Your task to perform on an android device: Go to Reddit.com Image 0: 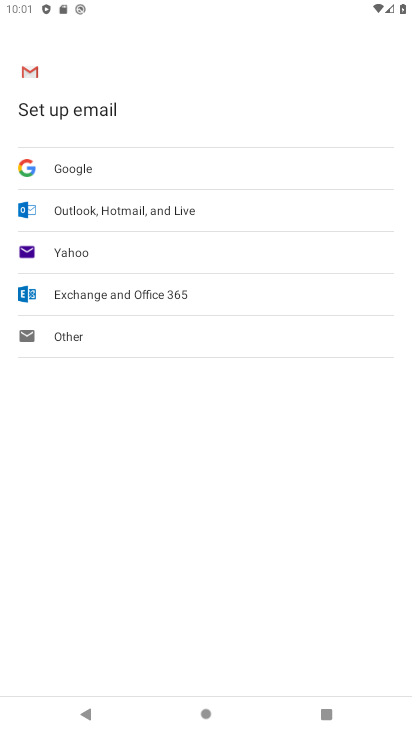
Step 0: press back button
Your task to perform on an android device: Go to Reddit.com Image 1: 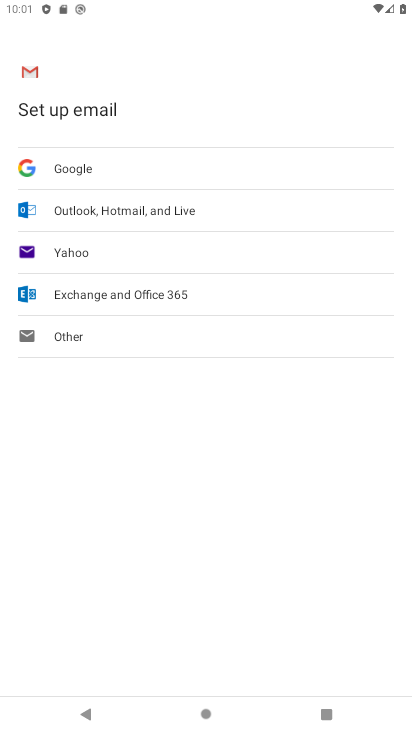
Step 1: press back button
Your task to perform on an android device: Go to Reddit.com Image 2: 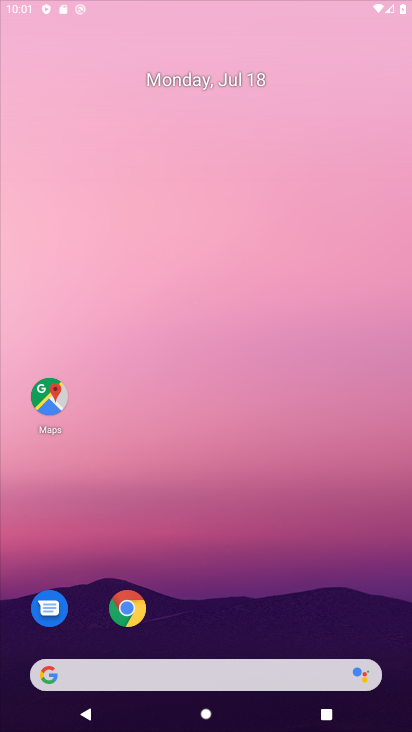
Step 2: press back button
Your task to perform on an android device: Go to Reddit.com Image 3: 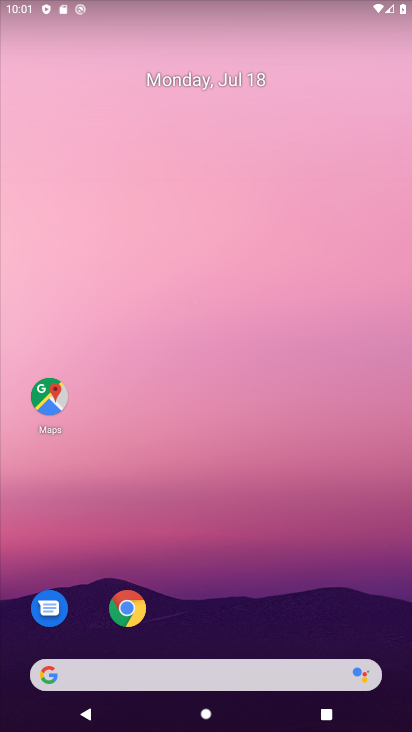
Step 3: click (273, 565)
Your task to perform on an android device: Go to Reddit.com Image 4: 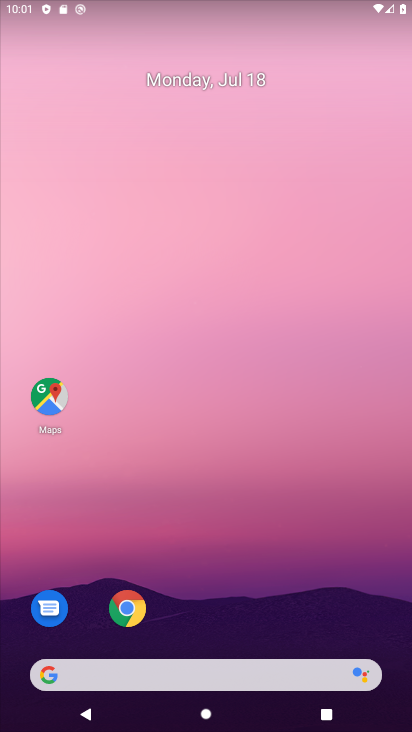
Step 4: drag from (167, 552) to (167, 293)
Your task to perform on an android device: Go to Reddit.com Image 5: 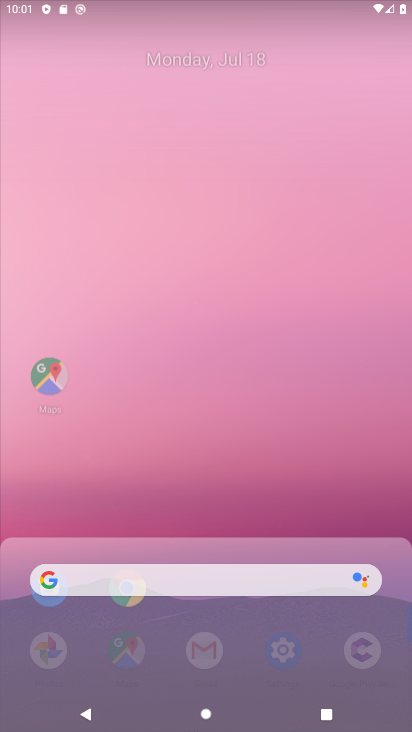
Step 5: drag from (231, 555) to (259, 316)
Your task to perform on an android device: Go to Reddit.com Image 6: 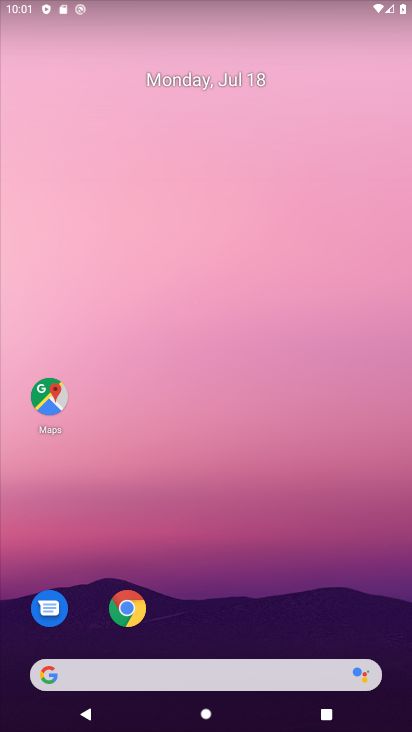
Step 6: drag from (210, 528) to (193, 337)
Your task to perform on an android device: Go to Reddit.com Image 7: 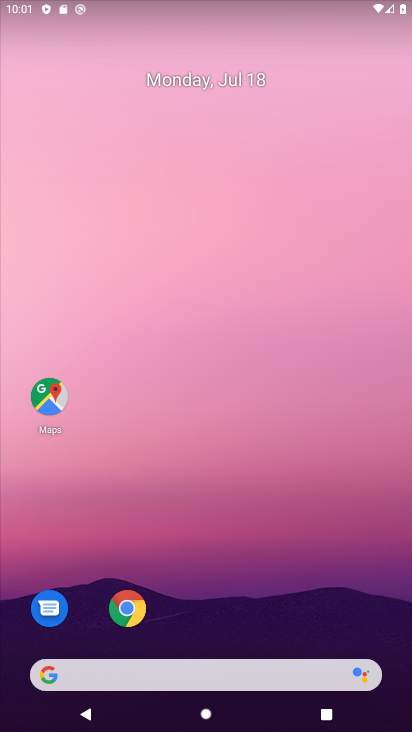
Step 7: click (221, 329)
Your task to perform on an android device: Go to Reddit.com Image 8: 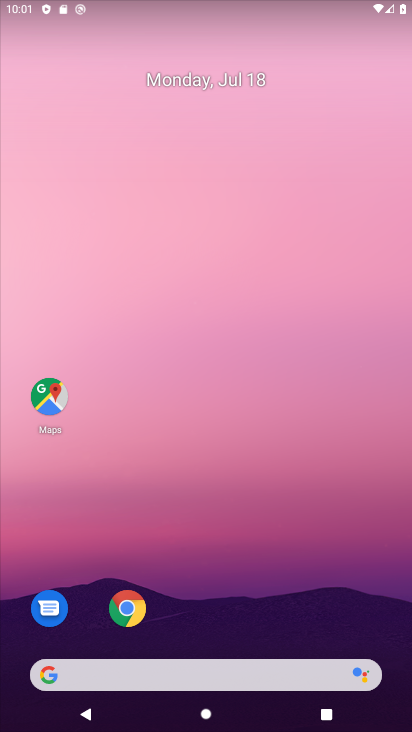
Step 8: click (288, 66)
Your task to perform on an android device: Go to Reddit.com Image 9: 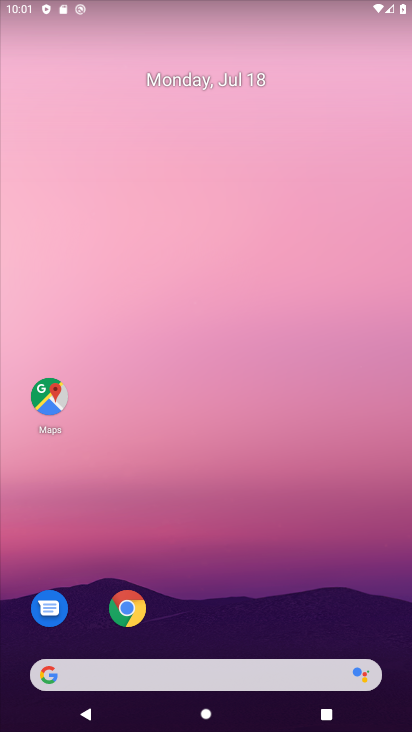
Step 9: drag from (173, 107) to (224, 228)
Your task to perform on an android device: Go to Reddit.com Image 10: 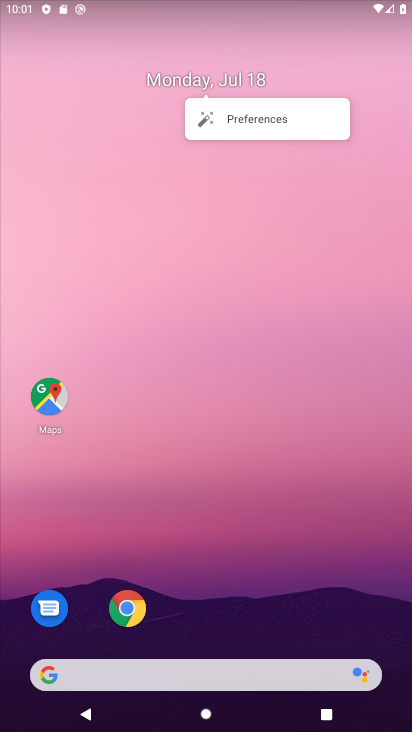
Step 10: click (239, 116)
Your task to perform on an android device: Go to Reddit.com Image 11: 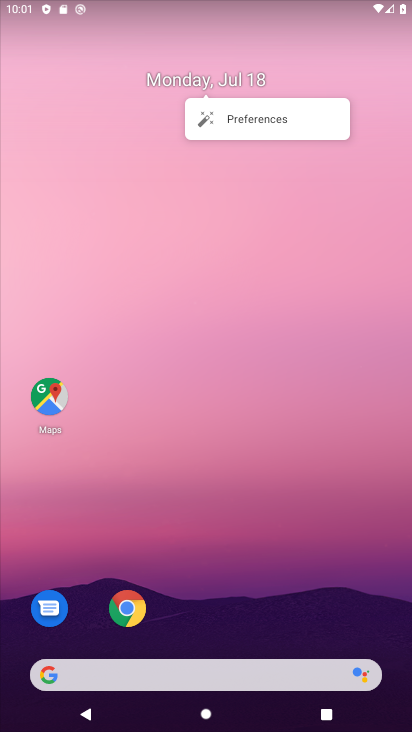
Step 11: click (155, 104)
Your task to perform on an android device: Go to Reddit.com Image 12: 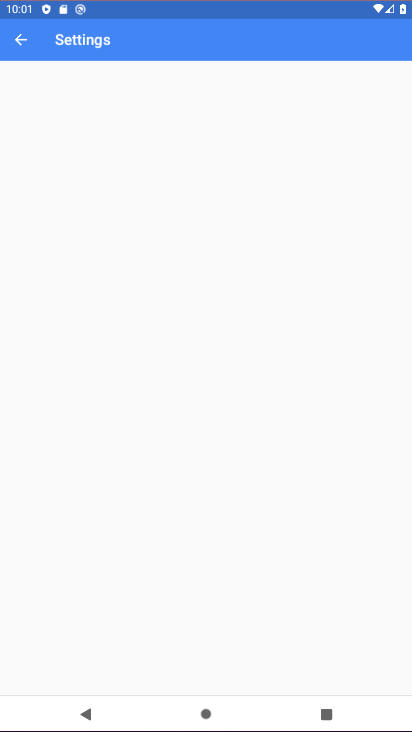
Step 12: drag from (209, 445) to (200, 105)
Your task to perform on an android device: Go to Reddit.com Image 13: 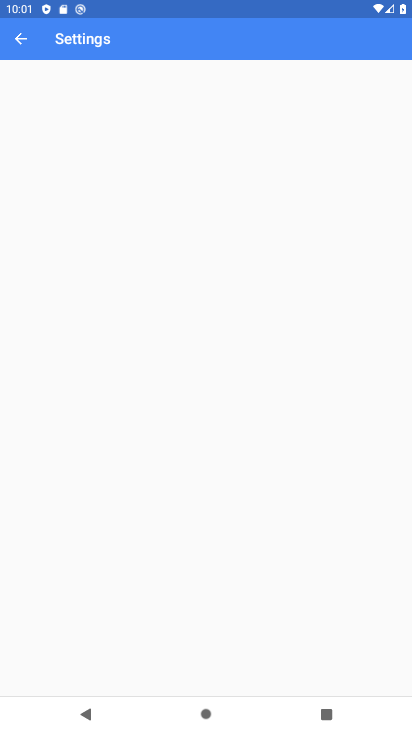
Step 13: drag from (150, 252) to (146, 214)
Your task to perform on an android device: Go to Reddit.com Image 14: 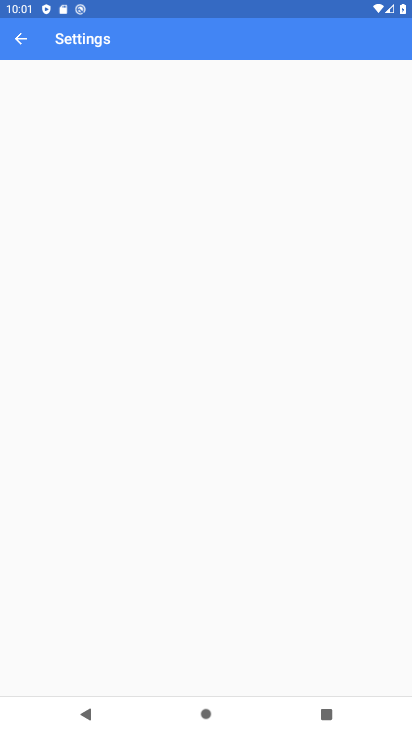
Step 14: click (197, 372)
Your task to perform on an android device: Go to Reddit.com Image 15: 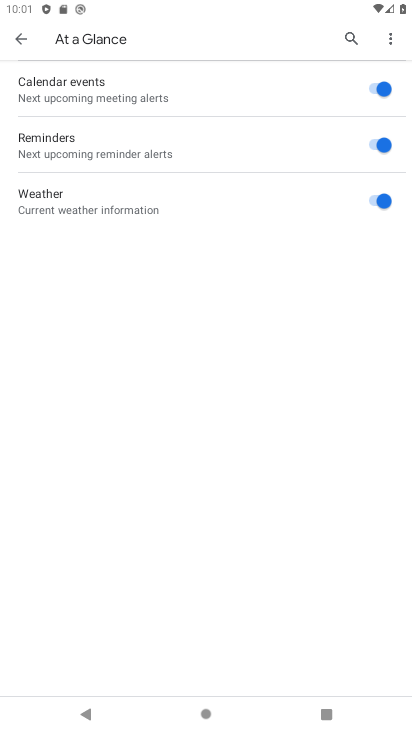
Step 15: click (24, 34)
Your task to perform on an android device: Go to Reddit.com Image 16: 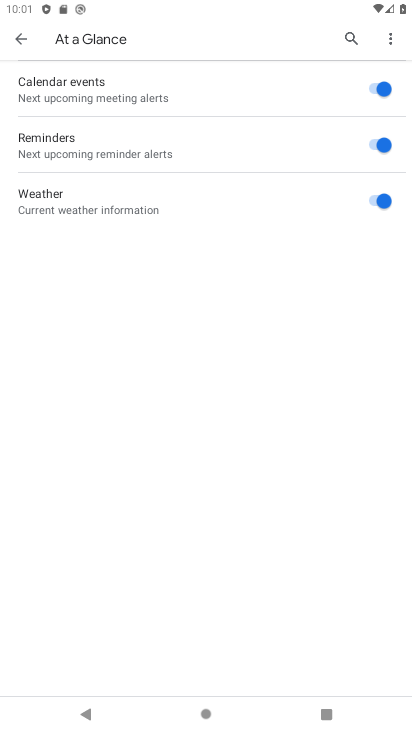
Step 16: click (23, 33)
Your task to perform on an android device: Go to Reddit.com Image 17: 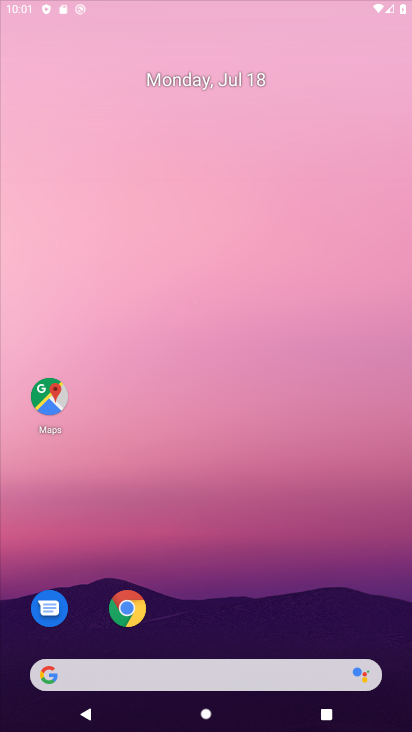
Step 17: click (22, 38)
Your task to perform on an android device: Go to Reddit.com Image 18: 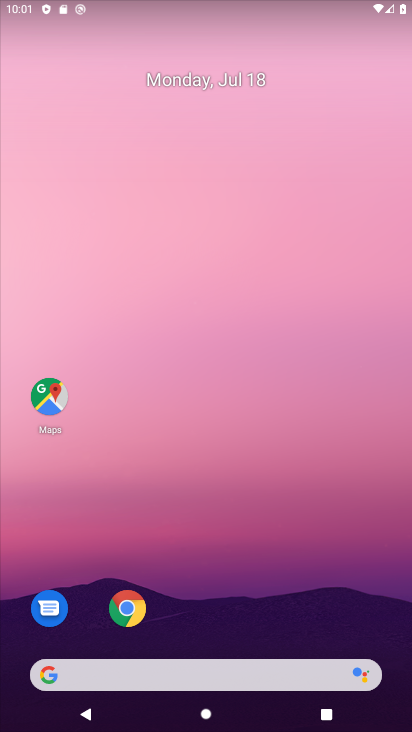
Step 18: drag from (208, 535) to (220, 347)
Your task to perform on an android device: Go to Reddit.com Image 19: 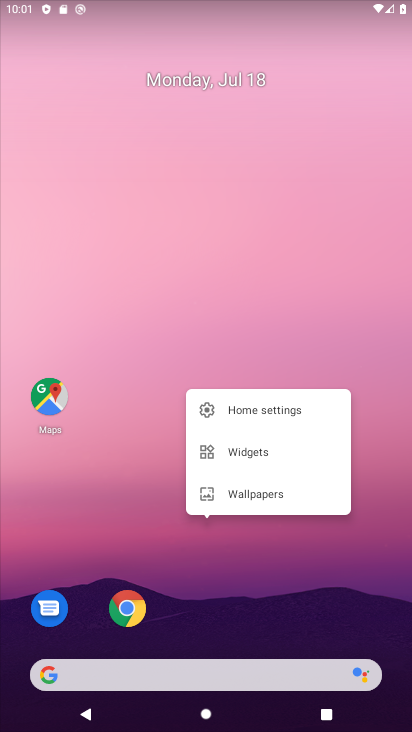
Step 19: drag from (211, 548) to (161, 245)
Your task to perform on an android device: Go to Reddit.com Image 20: 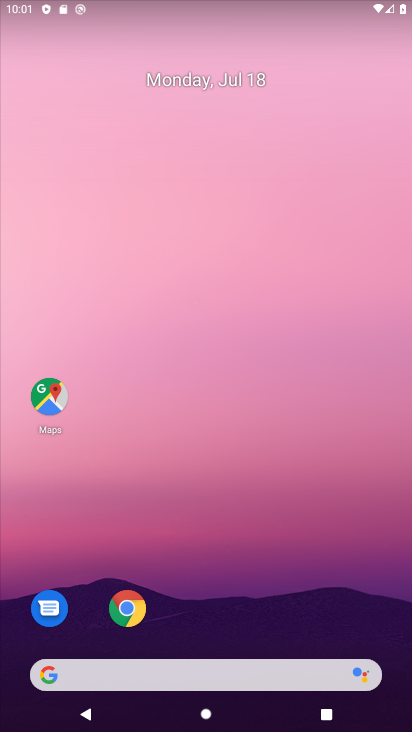
Step 20: drag from (141, 380) to (291, 460)
Your task to perform on an android device: Go to Reddit.com Image 21: 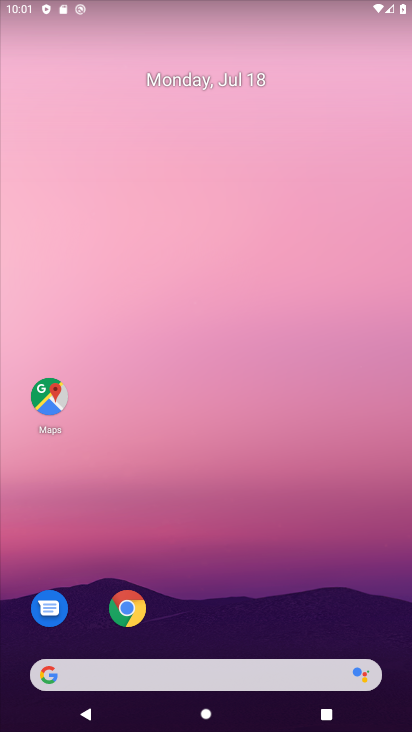
Step 21: drag from (183, 68) to (167, 7)
Your task to perform on an android device: Go to Reddit.com Image 22: 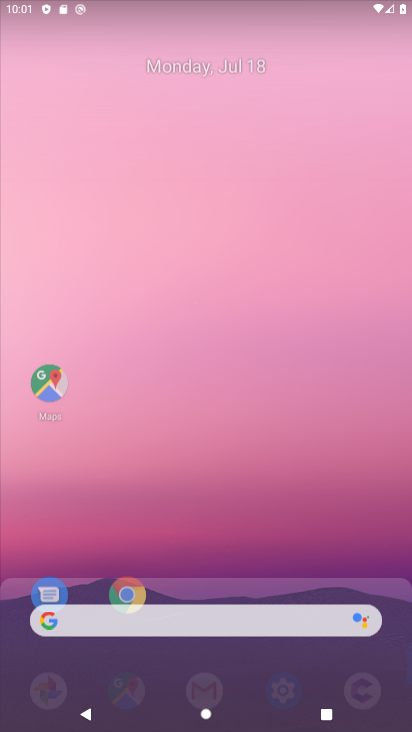
Step 22: drag from (218, 424) to (154, 56)
Your task to perform on an android device: Go to Reddit.com Image 23: 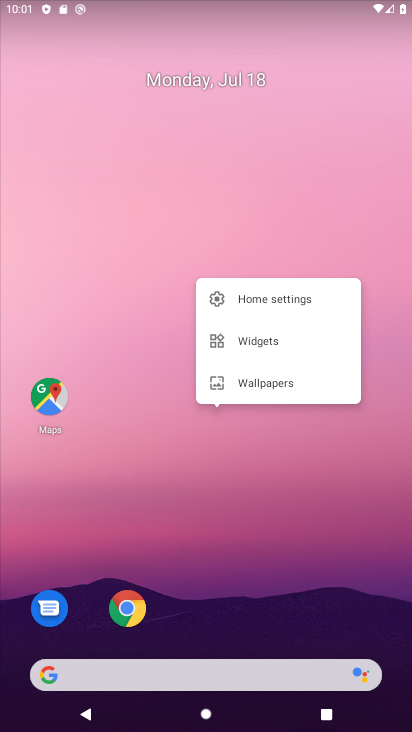
Step 23: drag from (136, 34) to (169, 0)
Your task to perform on an android device: Go to Reddit.com Image 24: 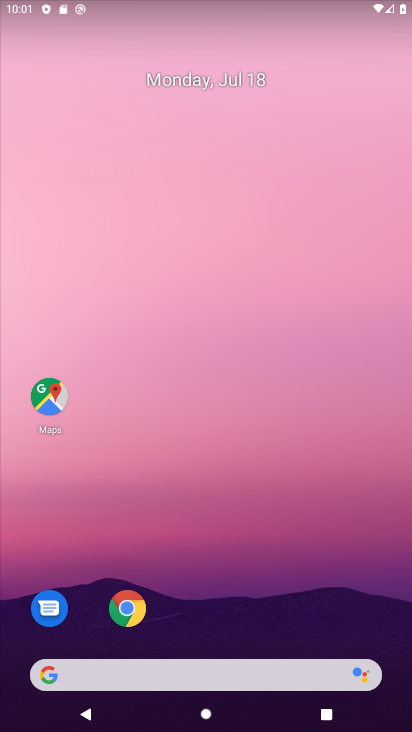
Step 24: click (120, 21)
Your task to perform on an android device: Go to Reddit.com Image 25: 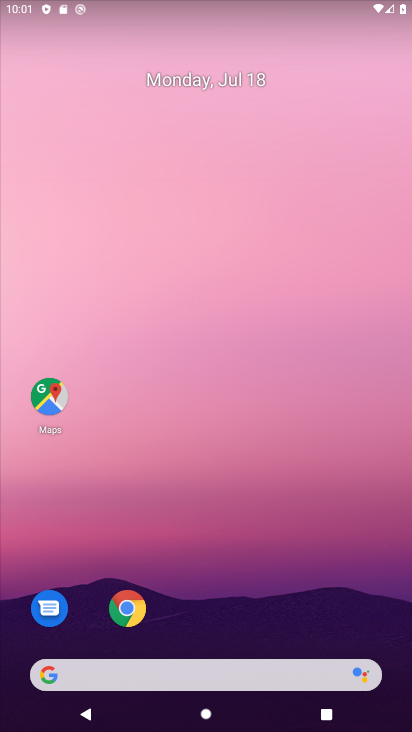
Step 25: drag from (124, 81) to (164, 7)
Your task to perform on an android device: Go to Reddit.com Image 26: 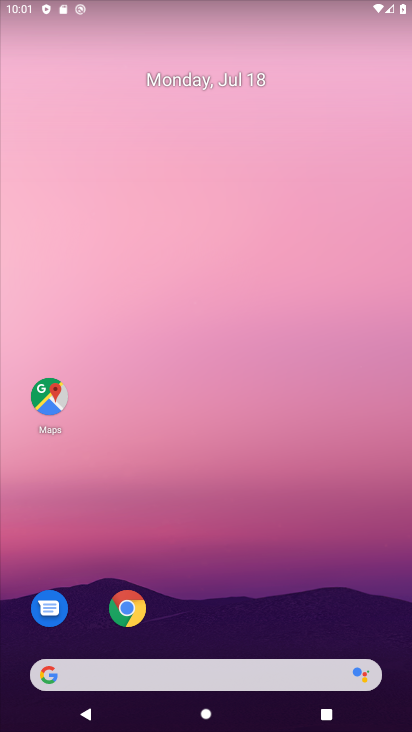
Step 26: click (189, 10)
Your task to perform on an android device: Go to Reddit.com Image 27: 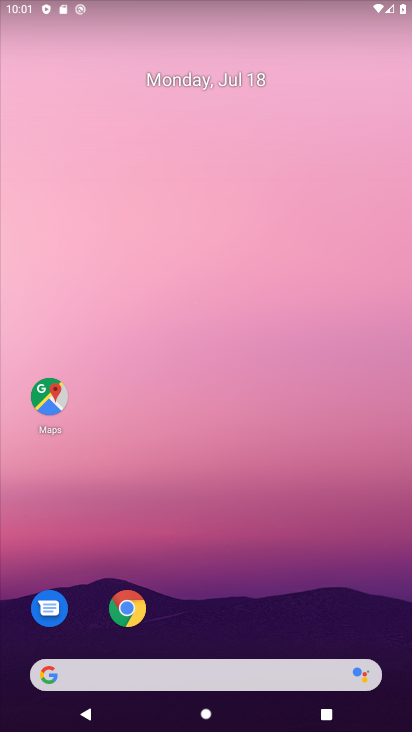
Step 27: click (179, 73)
Your task to perform on an android device: Go to Reddit.com Image 28: 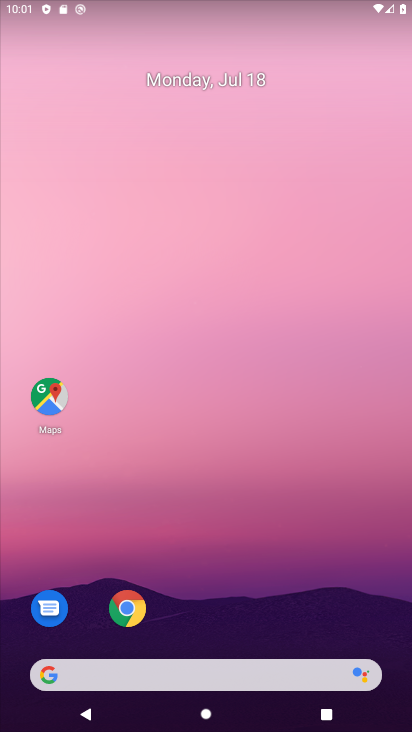
Step 28: drag from (209, 511) to (197, 243)
Your task to perform on an android device: Go to Reddit.com Image 29: 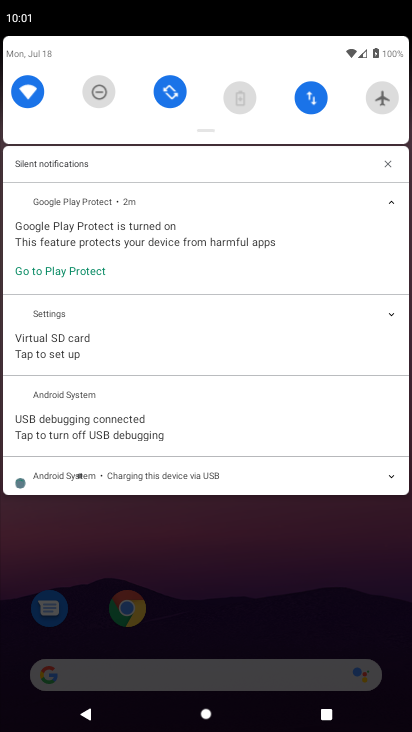
Step 29: drag from (227, 413) to (173, 119)
Your task to perform on an android device: Go to Reddit.com Image 30: 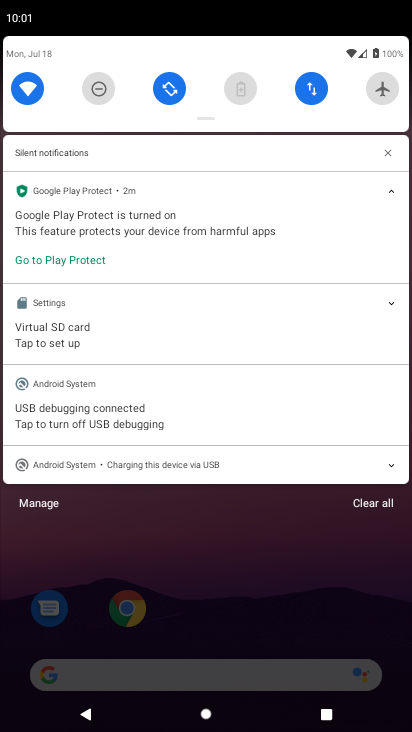
Step 30: click (188, 301)
Your task to perform on an android device: Go to Reddit.com Image 31: 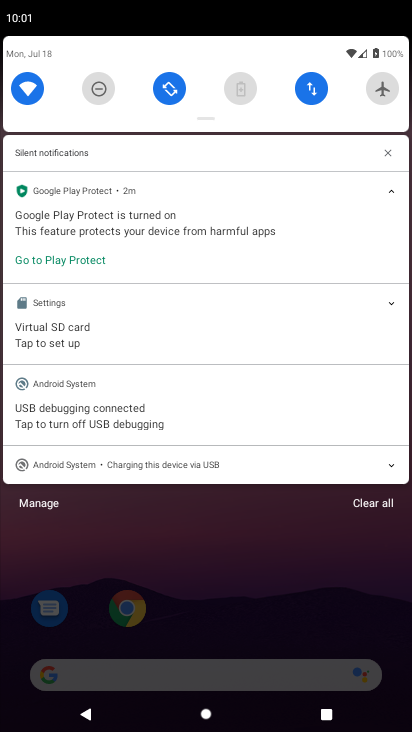
Step 31: click (188, 362)
Your task to perform on an android device: Go to Reddit.com Image 32: 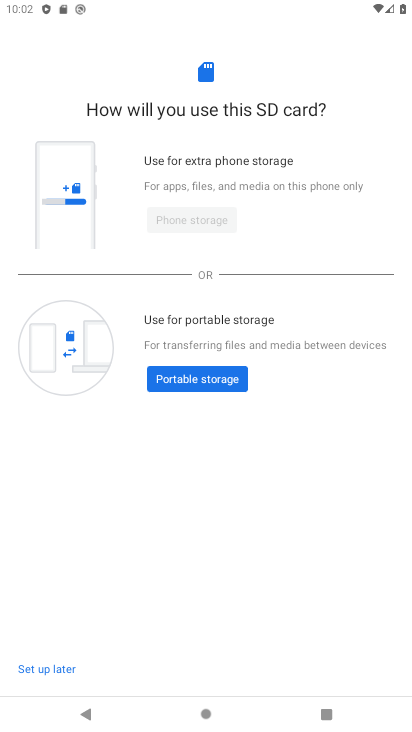
Step 32: task complete